Your task to perform on an android device: clear history in the chrome app Image 0: 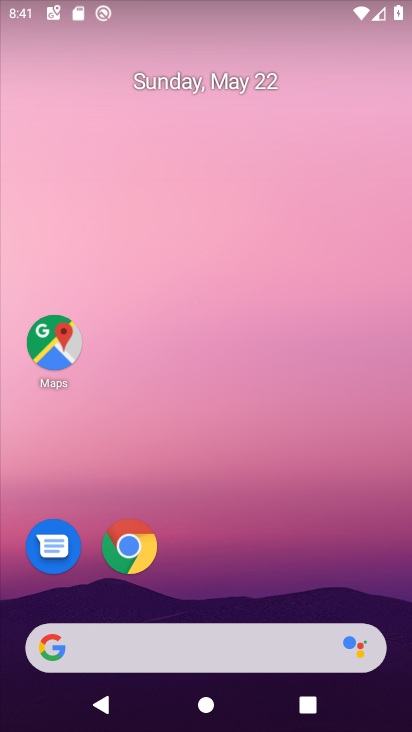
Step 0: click (356, 85)
Your task to perform on an android device: clear history in the chrome app Image 1: 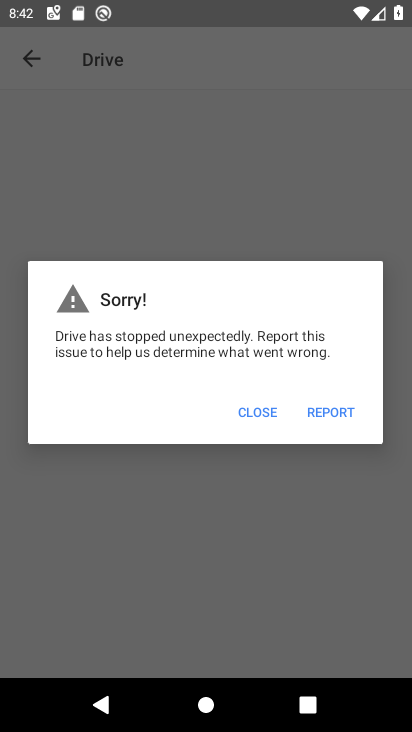
Step 1: press home button
Your task to perform on an android device: clear history in the chrome app Image 2: 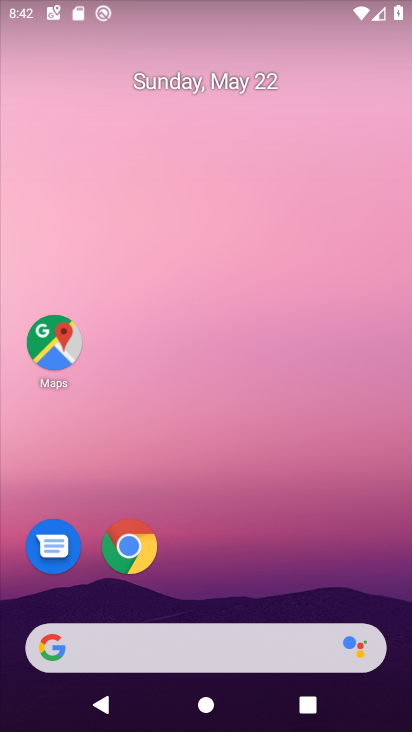
Step 2: drag from (380, 599) to (369, 130)
Your task to perform on an android device: clear history in the chrome app Image 3: 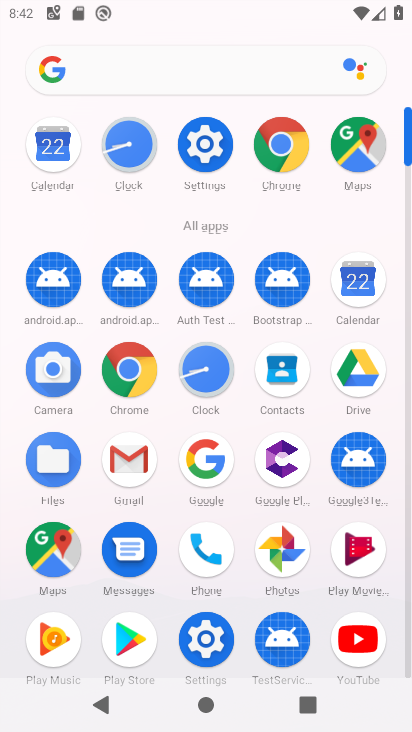
Step 3: click (132, 378)
Your task to perform on an android device: clear history in the chrome app Image 4: 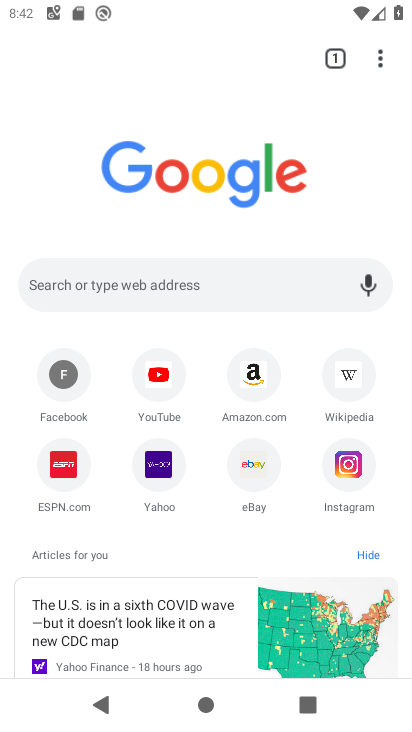
Step 4: click (378, 67)
Your task to perform on an android device: clear history in the chrome app Image 5: 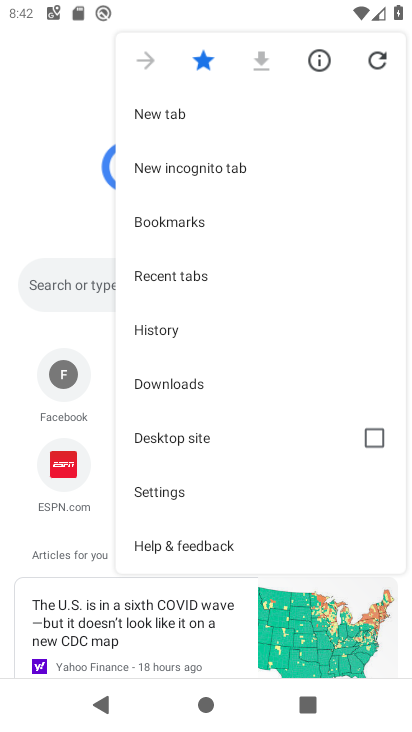
Step 5: click (186, 335)
Your task to perform on an android device: clear history in the chrome app Image 6: 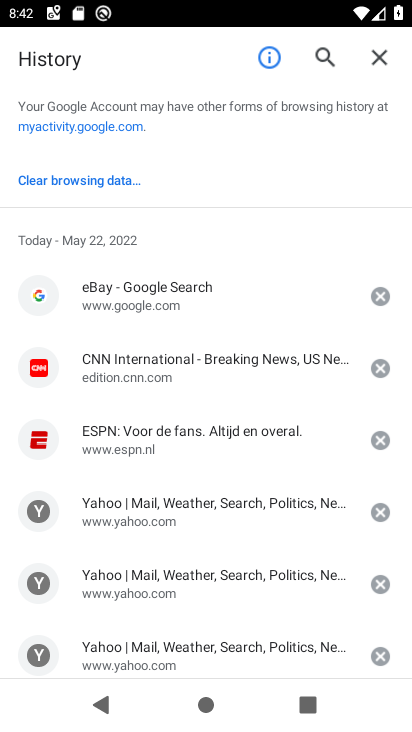
Step 6: click (117, 185)
Your task to perform on an android device: clear history in the chrome app Image 7: 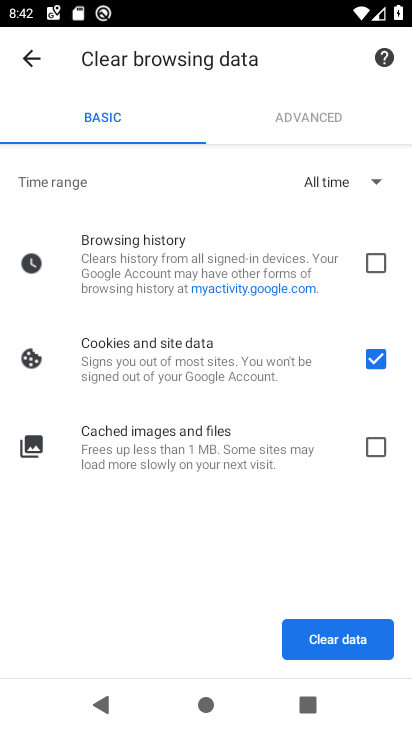
Step 7: click (347, 642)
Your task to perform on an android device: clear history in the chrome app Image 8: 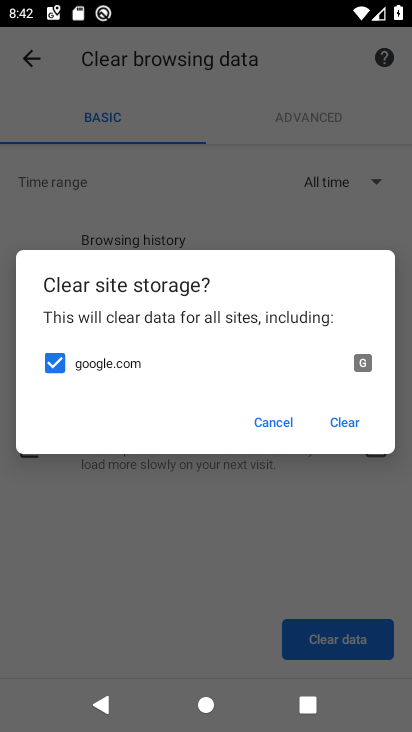
Step 8: click (334, 424)
Your task to perform on an android device: clear history in the chrome app Image 9: 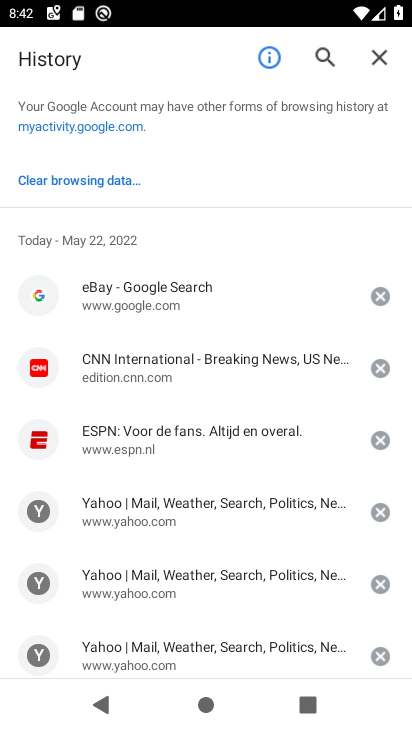
Step 9: click (118, 196)
Your task to perform on an android device: clear history in the chrome app Image 10: 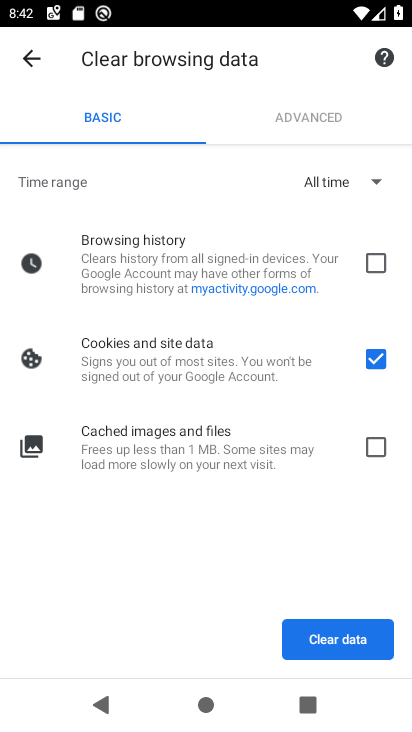
Step 10: click (380, 451)
Your task to perform on an android device: clear history in the chrome app Image 11: 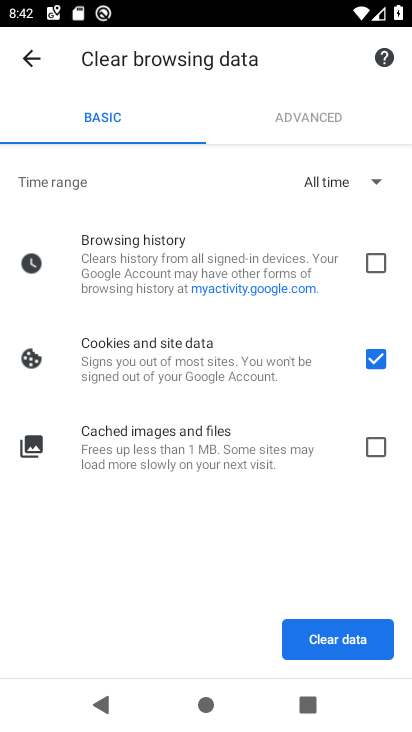
Step 11: click (386, 260)
Your task to perform on an android device: clear history in the chrome app Image 12: 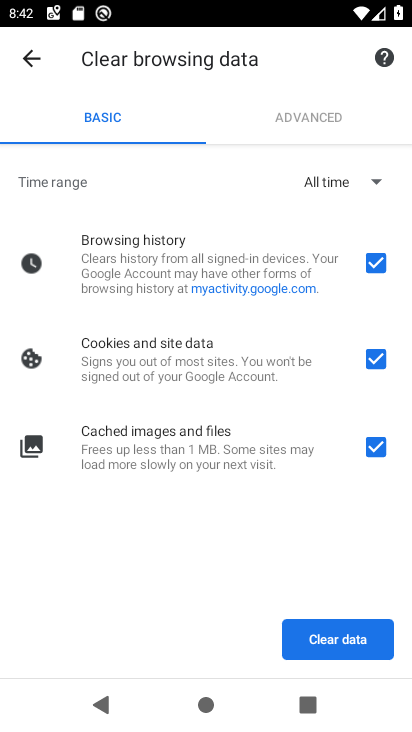
Step 12: click (358, 643)
Your task to perform on an android device: clear history in the chrome app Image 13: 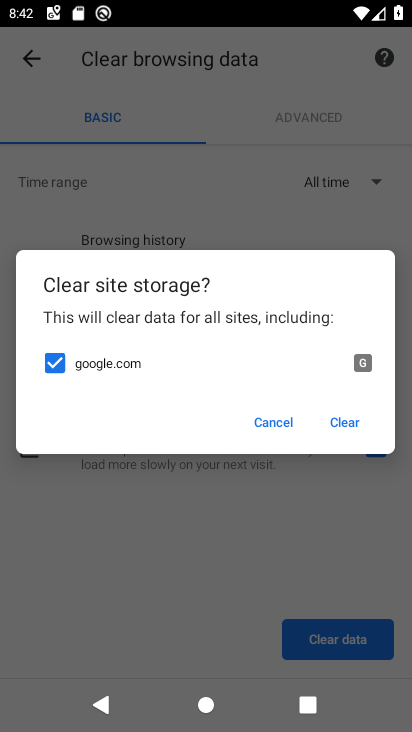
Step 13: click (335, 423)
Your task to perform on an android device: clear history in the chrome app Image 14: 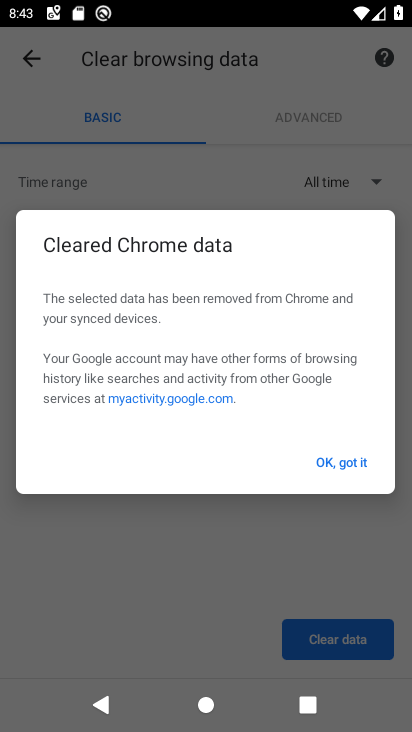
Step 14: click (351, 467)
Your task to perform on an android device: clear history in the chrome app Image 15: 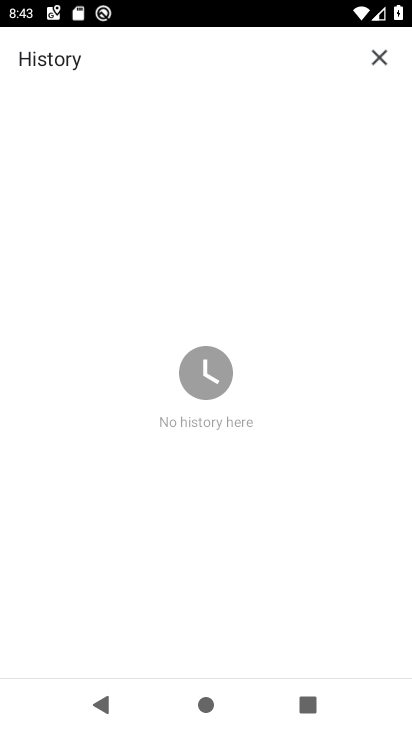
Step 15: task complete